Your task to perform on an android device: toggle location history Image 0: 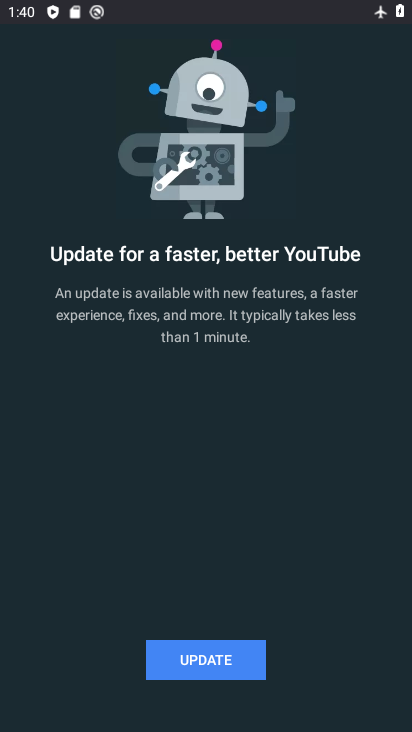
Step 0: press home button
Your task to perform on an android device: toggle location history Image 1: 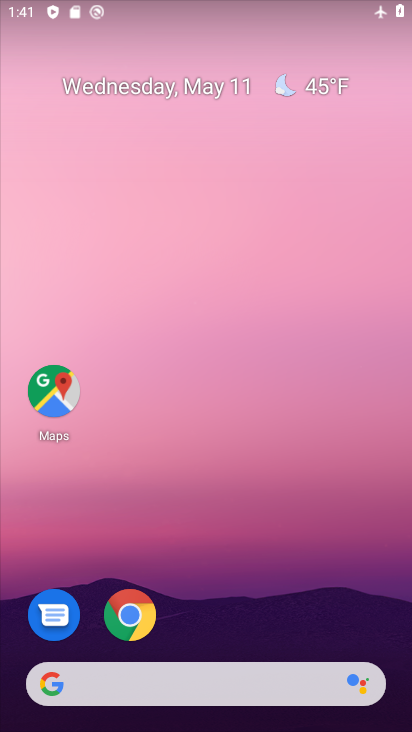
Step 1: drag from (168, 676) to (282, 131)
Your task to perform on an android device: toggle location history Image 2: 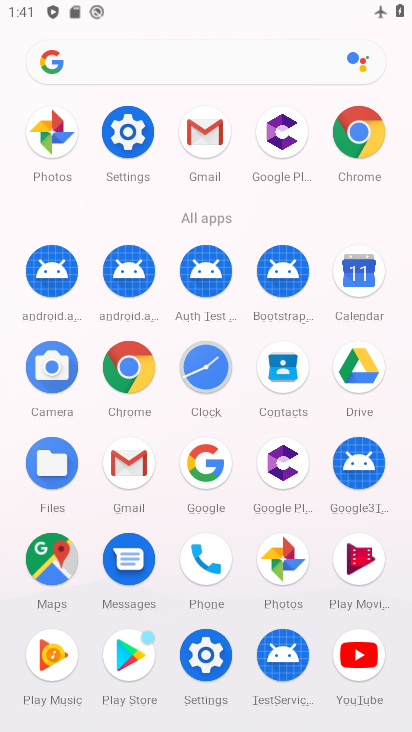
Step 2: click (134, 150)
Your task to perform on an android device: toggle location history Image 3: 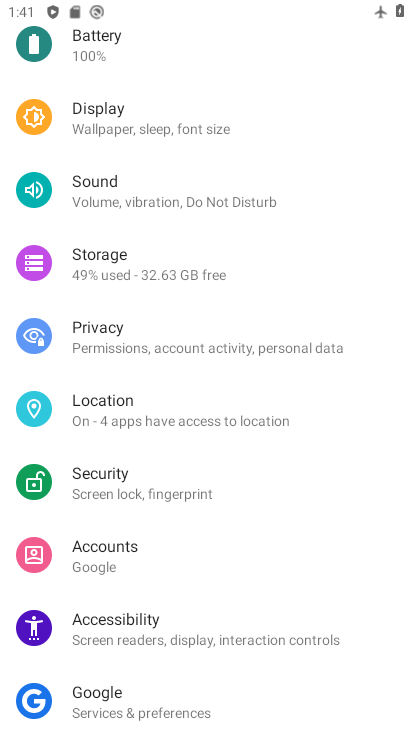
Step 3: click (122, 422)
Your task to perform on an android device: toggle location history Image 4: 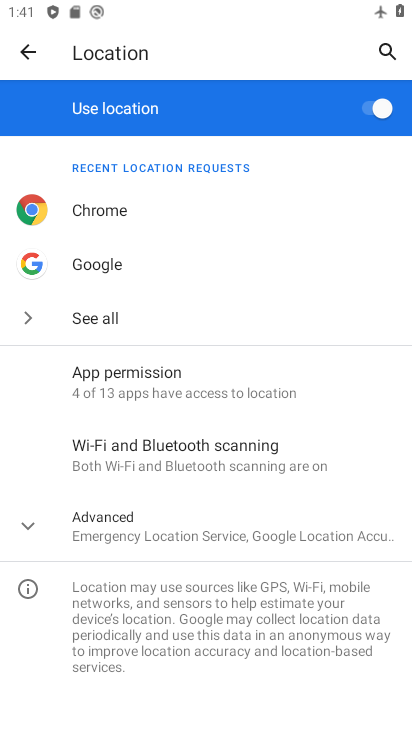
Step 4: click (158, 515)
Your task to perform on an android device: toggle location history Image 5: 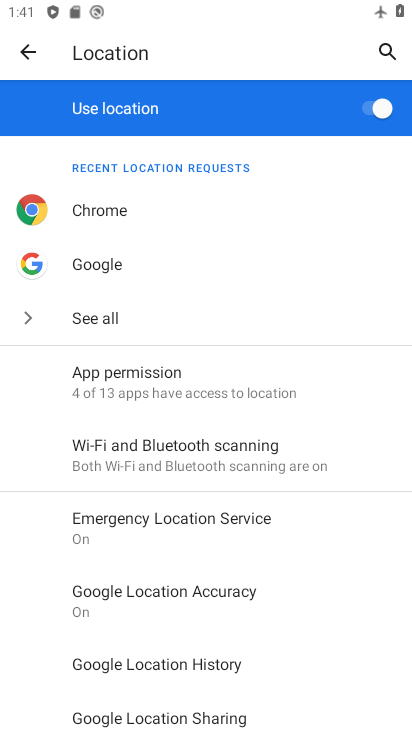
Step 5: click (217, 655)
Your task to perform on an android device: toggle location history Image 6: 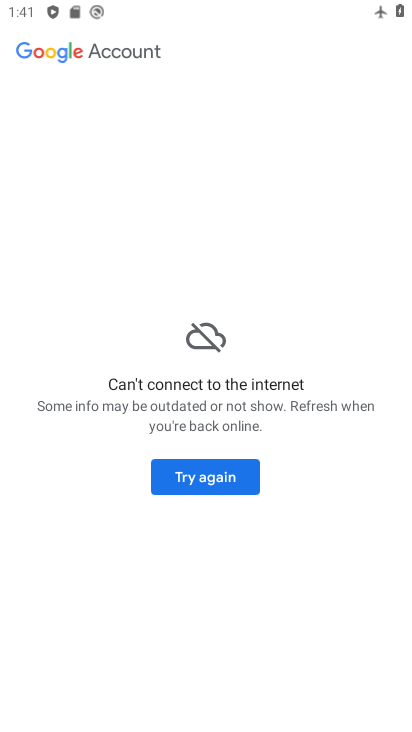
Step 6: task complete